Your task to perform on an android device: Go to privacy settings Image 0: 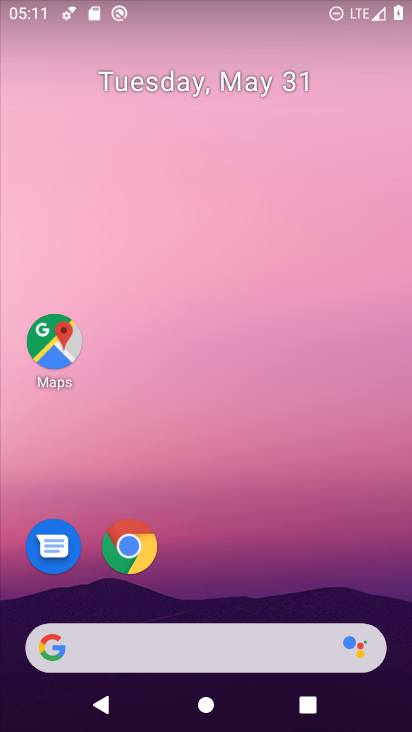
Step 0: drag from (173, 584) to (162, 294)
Your task to perform on an android device: Go to privacy settings Image 1: 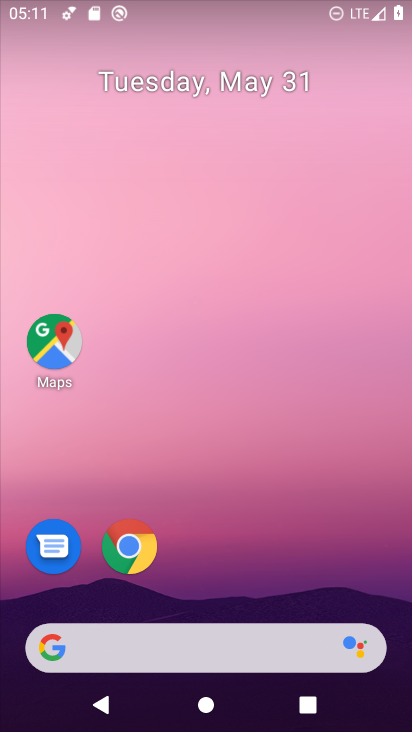
Step 1: drag from (189, 584) to (234, 127)
Your task to perform on an android device: Go to privacy settings Image 2: 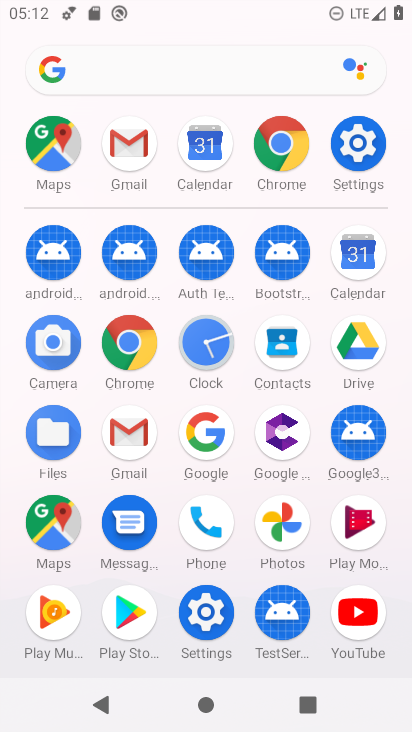
Step 2: click (363, 150)
Your task to perform on an android device: Go to privacy settings Image 3: 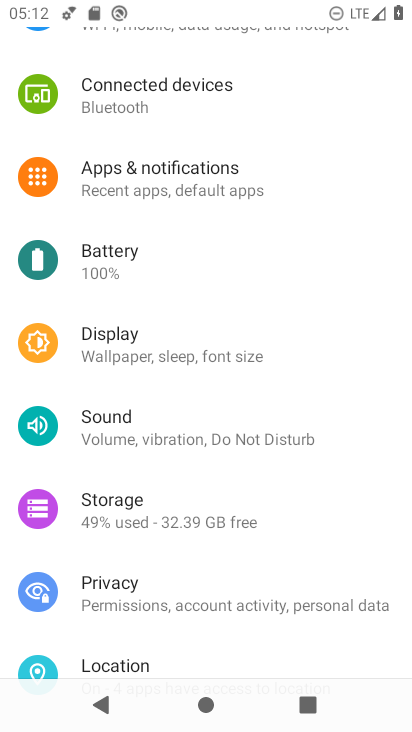
Step 3: click (103, 582)
Your task to perform on an android device: Go to privacy settings Image 4: 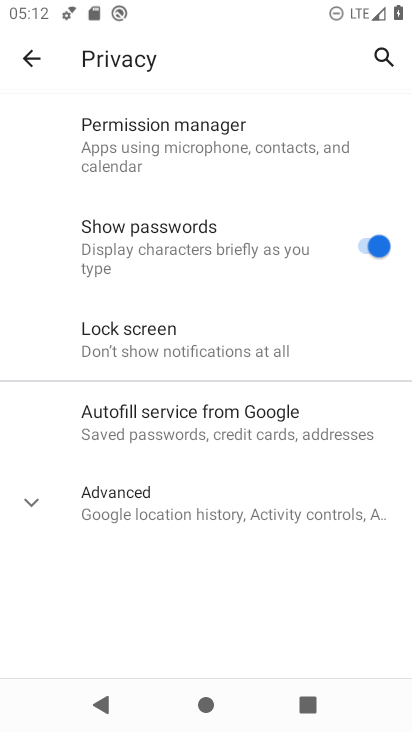
Step 4: task complete